Your task to perform on an android device: delete a single message in the gmail app Image 0: 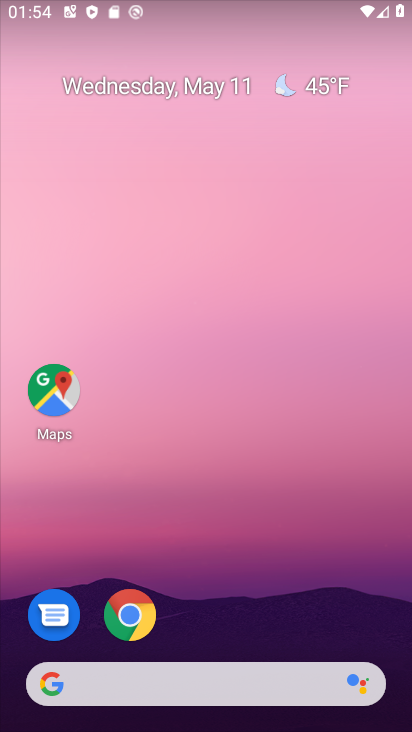
Step 0: drag from (295, 608) to (293, 184)
Your task to perform on an android device: delete a single message in the gmail app Image 1: 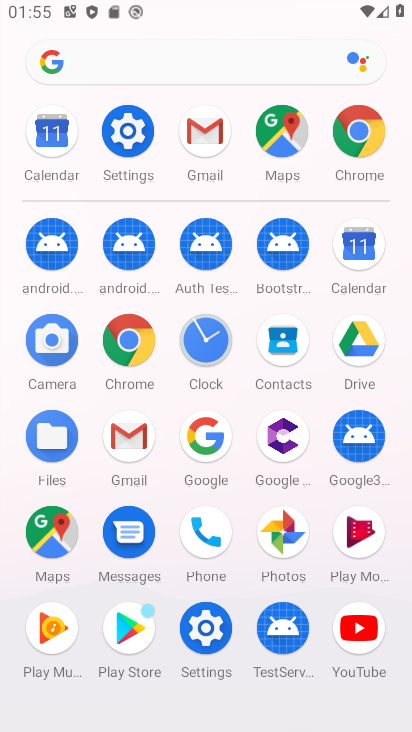
Step 1: click (129, 444)
Your task to perform on an android device: delete a single message in the gmail app Image 2: 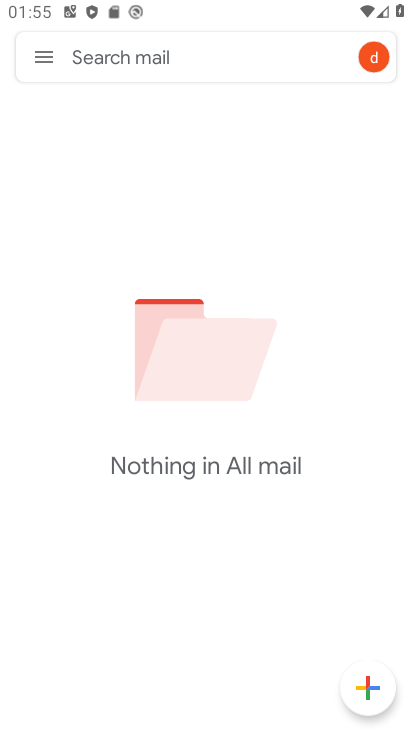
Step 2: click (51, 63)
Your task to perform on an android device: delete a single message in the gmail app Image 3: 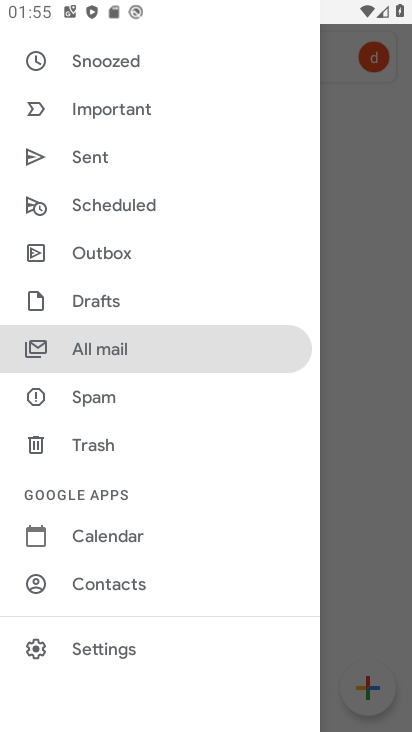
Step 3: click (130, 348)
Your task to perform on an android device: delete a single message in the gmail app Image 4: 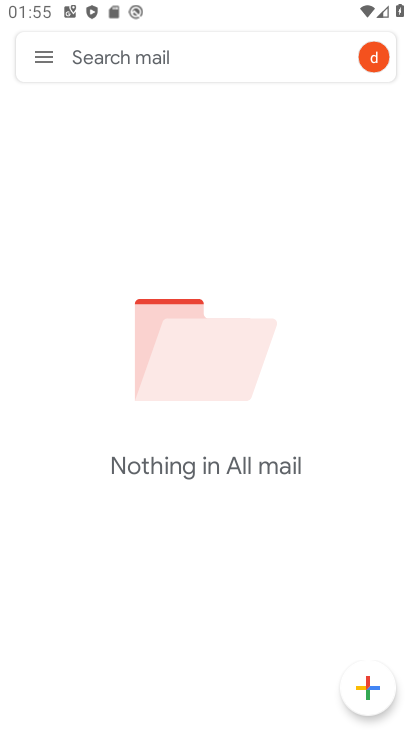
Step 4: task complete